Your task to perform on an android device: turn on airplane mode Image 0: 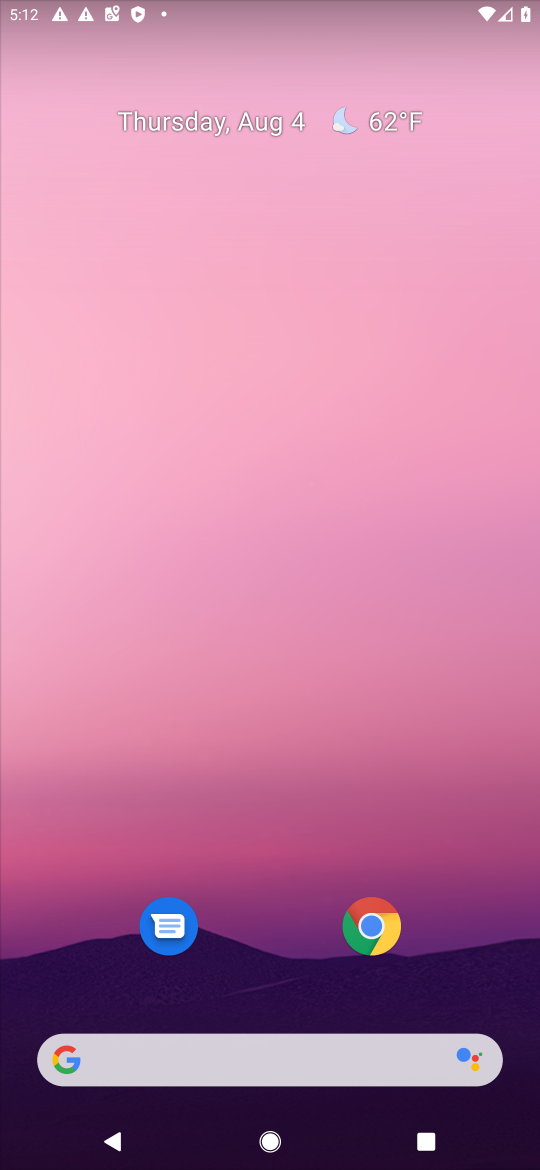
Step 0: press home button
Your task to perform on an android device: turn on airplane mode Image 1: 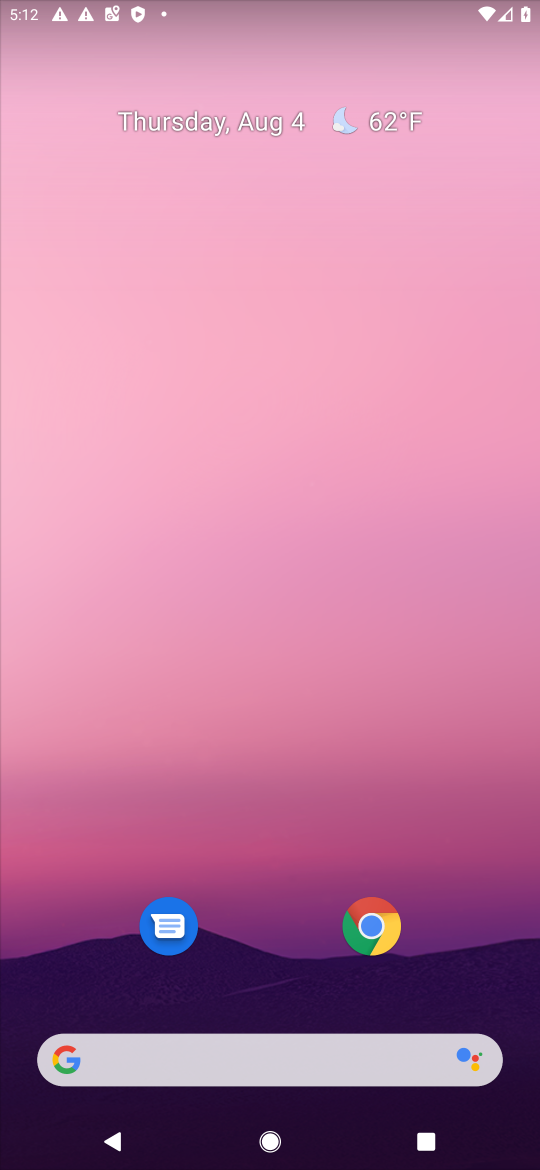
Step 1: drag from (317, 158) to (285, 701)
Your task to perform on an android device: turn on airplane mode Image 2: 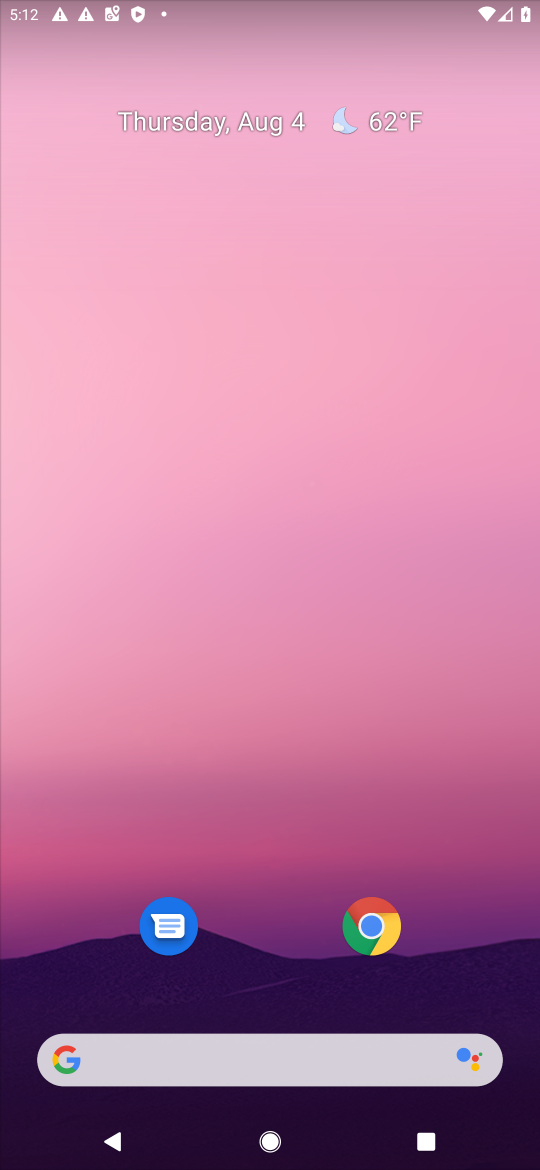
Step 2: drag from (300, 222) to (289, 1025)
Your task to perform on an android device: turn on airplane mode Image 3: 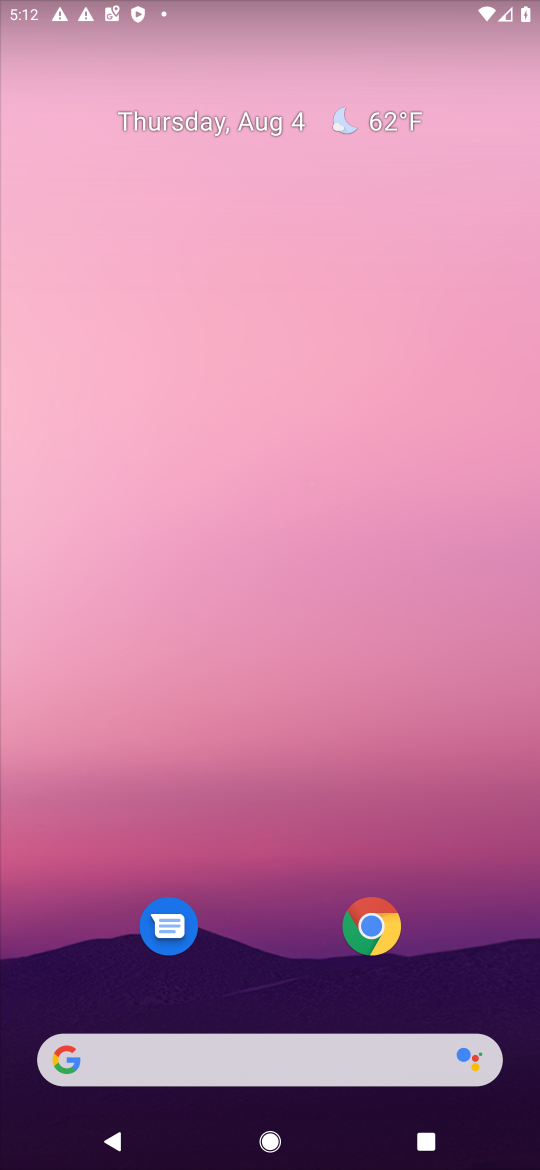
Step 3: drag from (281, 78) to (203, 1125)
Your task to perform on an android device: turn on airplane mode Image 4: 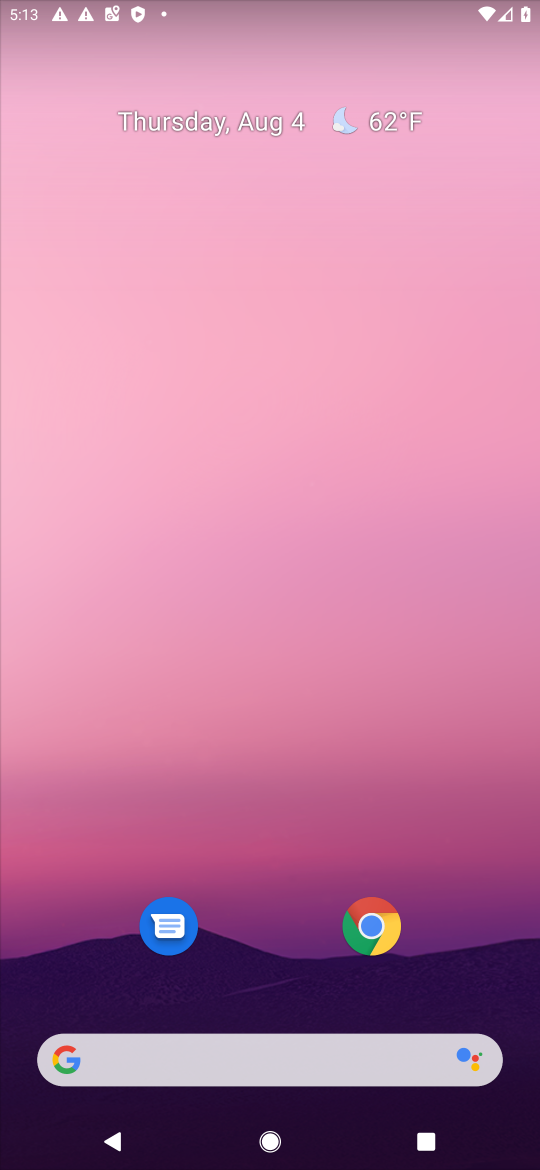
Step 4: drag from (273, 243) to (169, 1162)
Your task to perform on an android device: turn on airplane mode Image 5: 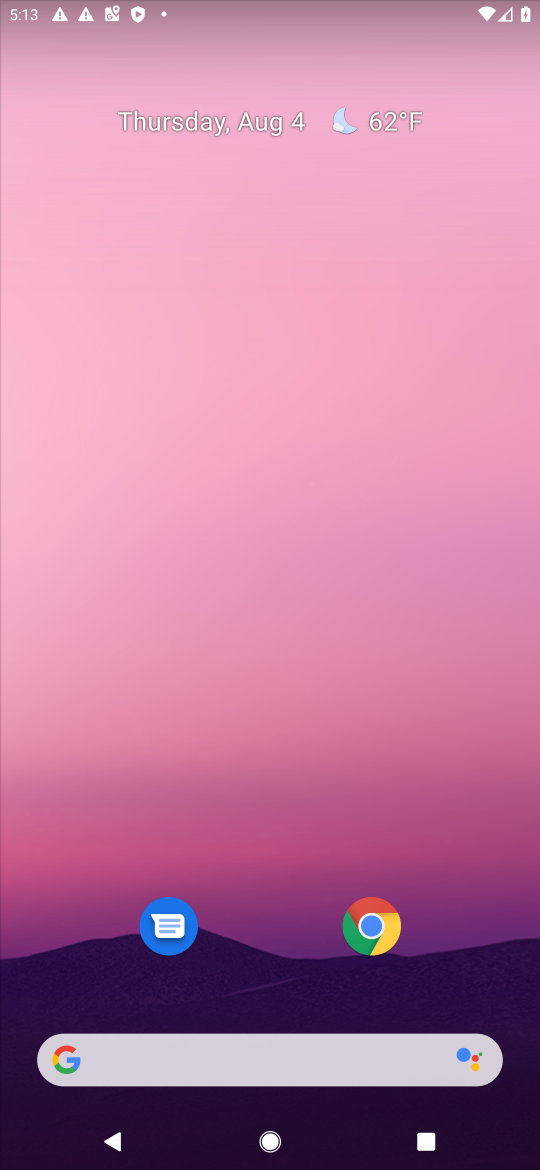
Step 5: drag from (263, 16) to (276, 1013)
Your task to perform on an android device: turn on airplane mode Image 6: 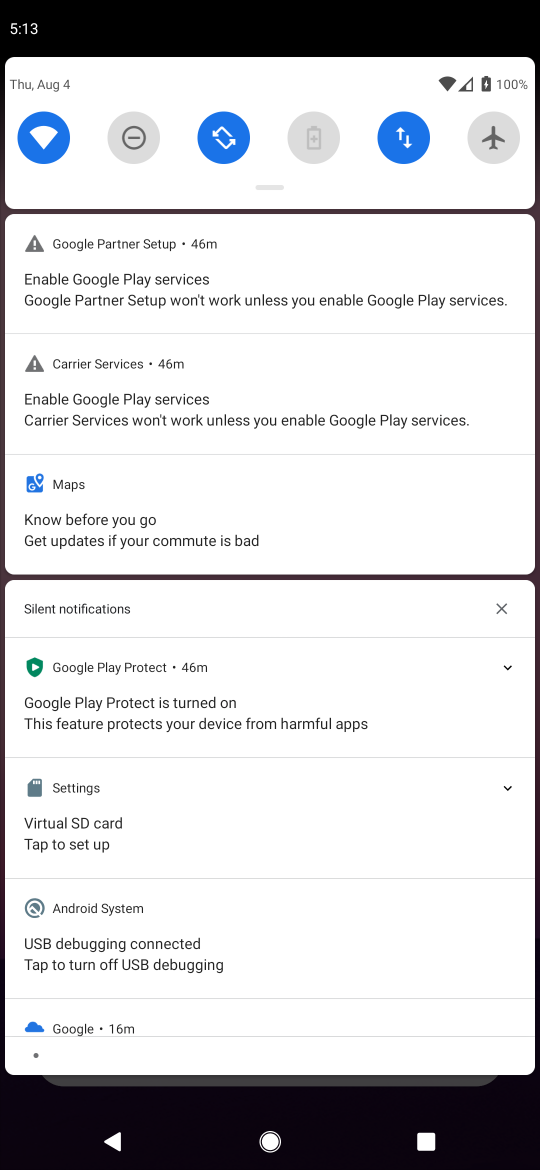
Step 6: drag from (275, 43) to (104, 659)
Your task to perform on an android device: turn on airplane mode Image 7: 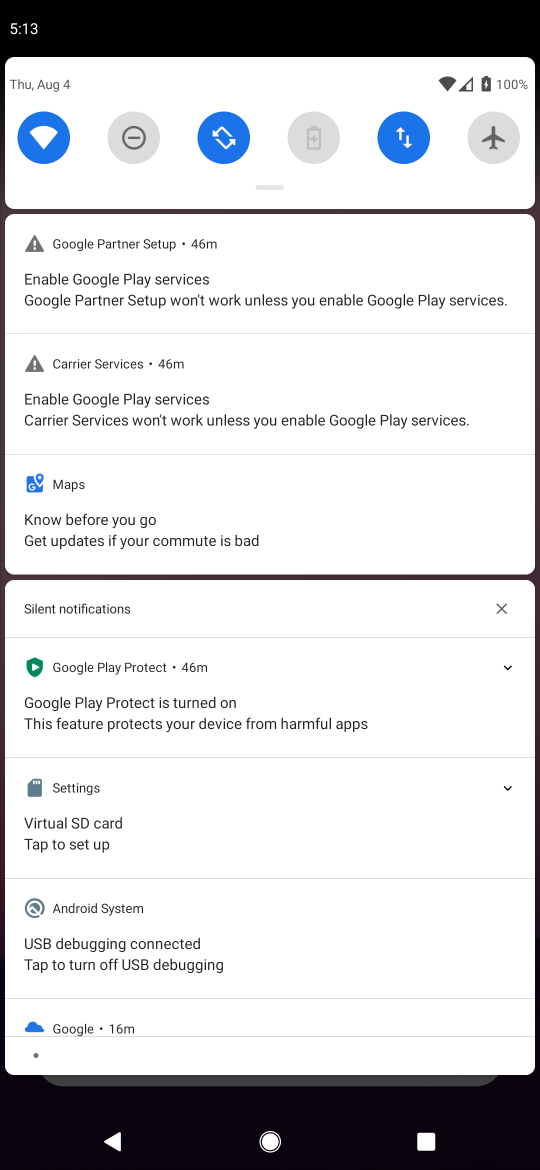
Step 7: click (489, 141)
Your task to perform on an android device: turn on airplane mode Image 8: 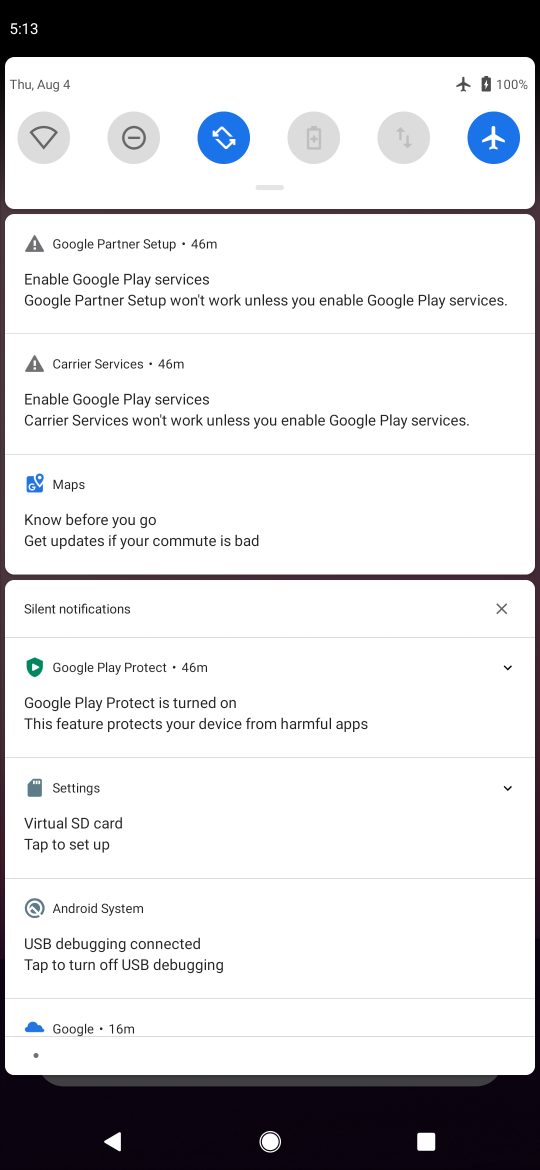
Step 8: task complete